Your task to perform on an android device: turn off improve location accuracy Image 0: 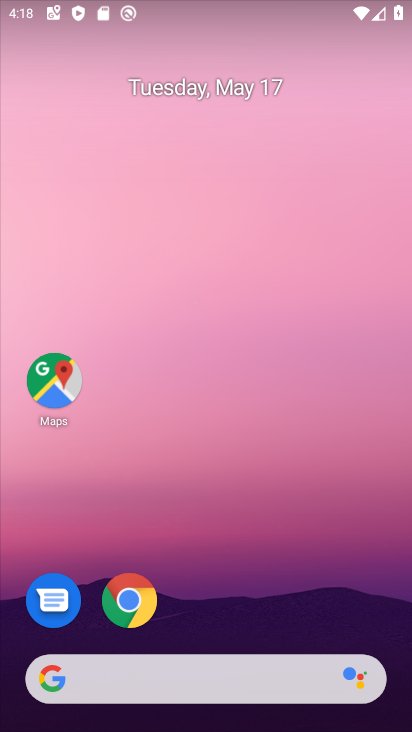
Step 0: drag from (220, 636) to (264, 106)
Your task to perform on an android device: turn off improve location accuracy Image 1: 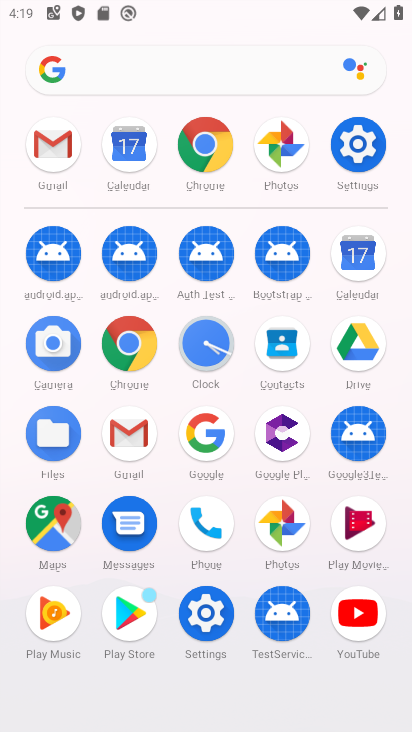
Step 1: click (199, 622)
Your task to perform on an android device: turn off improve location accuracy Image 2: 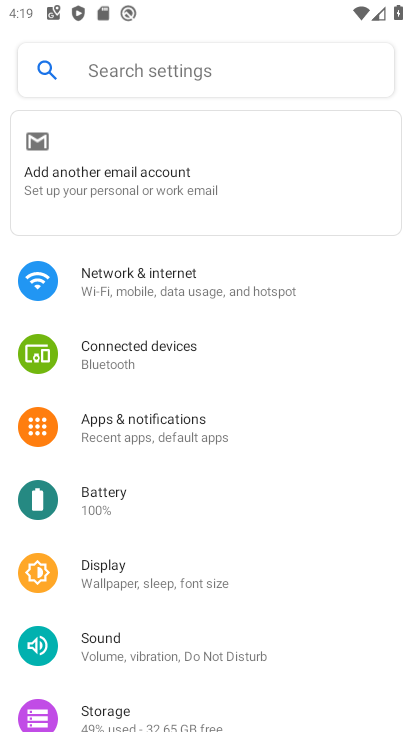
Step 2: drag from (172, 572) to (186, 337)
Your task to perform on an android device: turn off improve location accuracy Image 3: 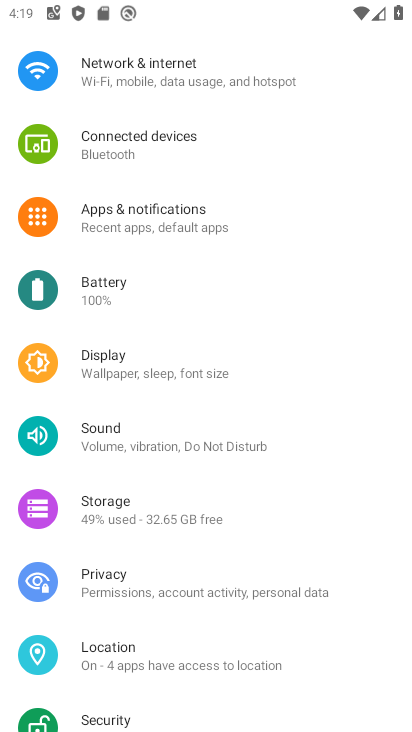
Step 3: drag from (137, 616) to (222, 171)
Your task to perform on an android device: turn off improve location accuracy Image 4: 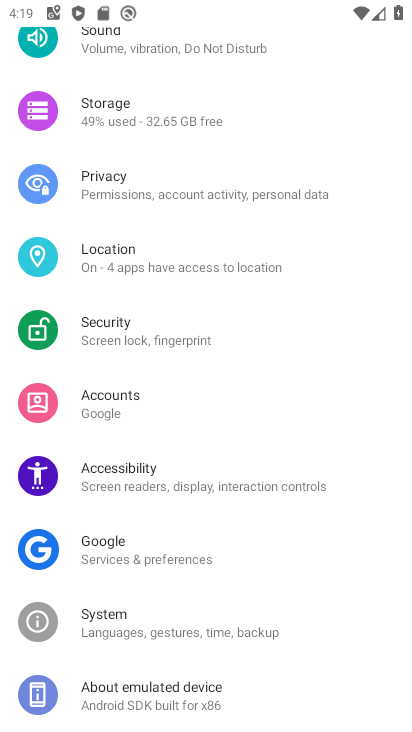
Step 4: click (151, 264)
Your task to perform on an android device: turn off improve location accuracy Image 5: 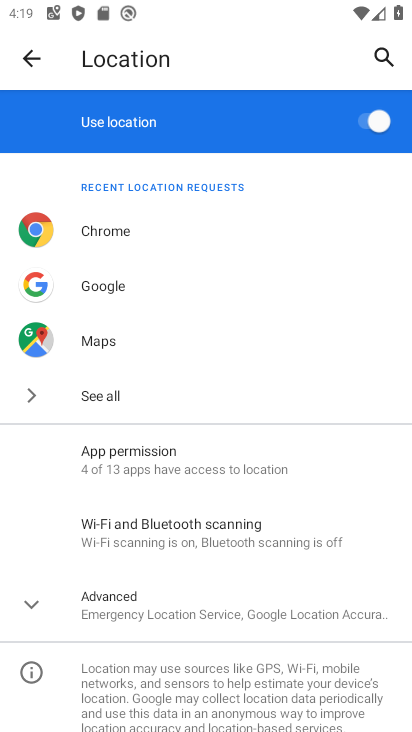
Step 5: drag from (155, 621) to (173, 527)
Your task to perform on an android device: turn off improve location accuracy Image 6: 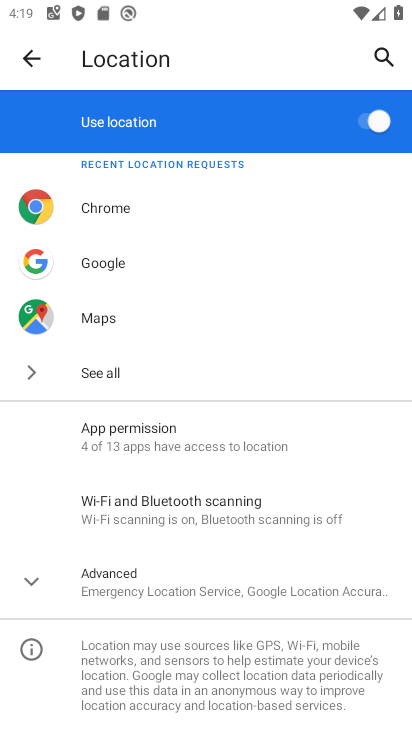
Step 6: click (134, 582)
Your task to perform on an android device: turn off improve location accuracy Image 7: 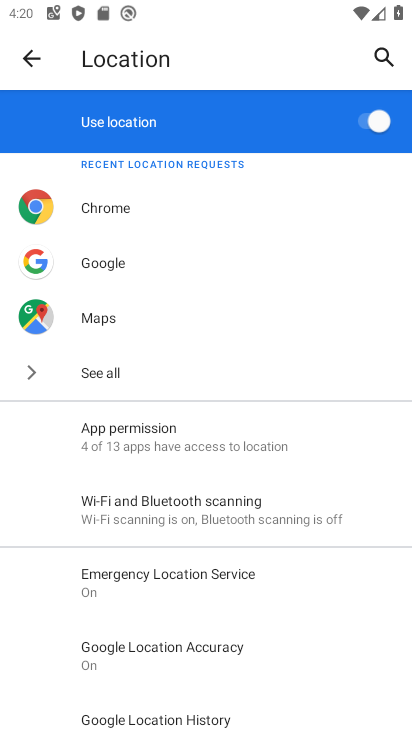
Step 7: click (179, 659)
Your task to perform on an android device: turn off improve location accuracy Image 8: 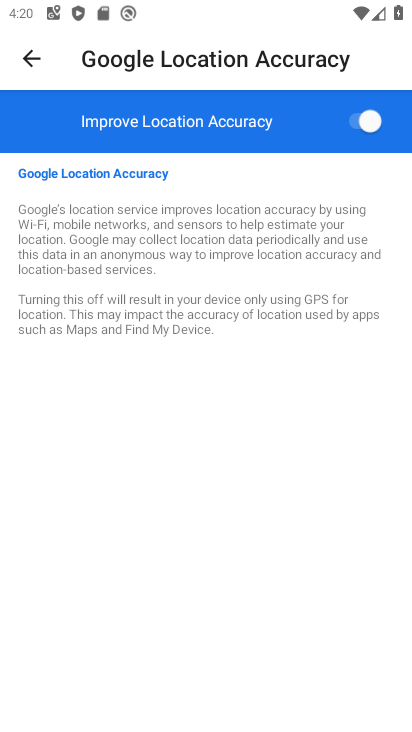
Step 8: click (353, 117)
Your task to perform on an android device: turn off improve location accuracy Image 9: 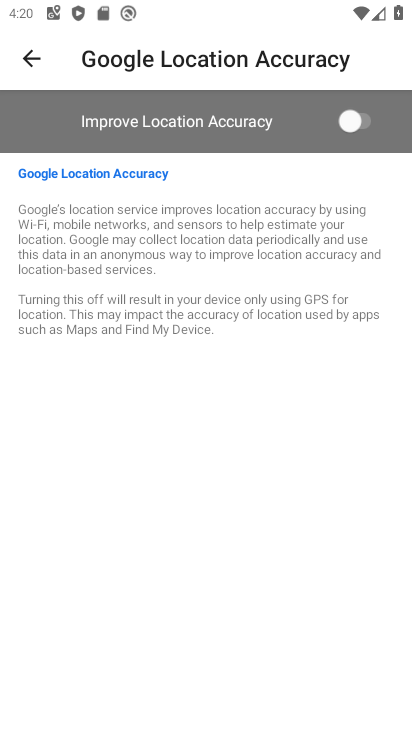
Step 9: task complete